Your task to perform on an android device: open app "Adobe Acrobat Reader: Edit PDF" Image 0: 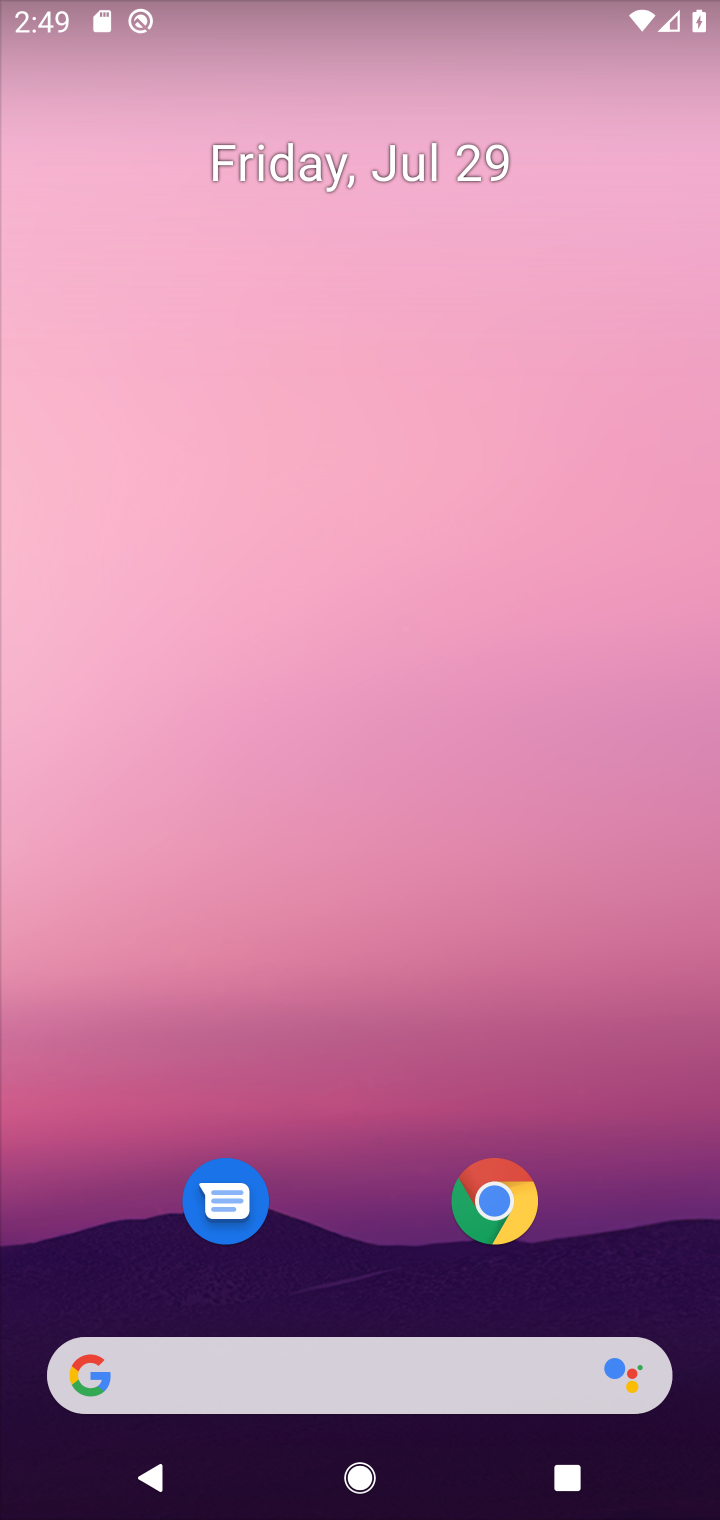
Step 0: click (656, 1018)
Your task to perform on an android device: open app "Adobe Acrobat Reader: Edit PDF" Image 1: 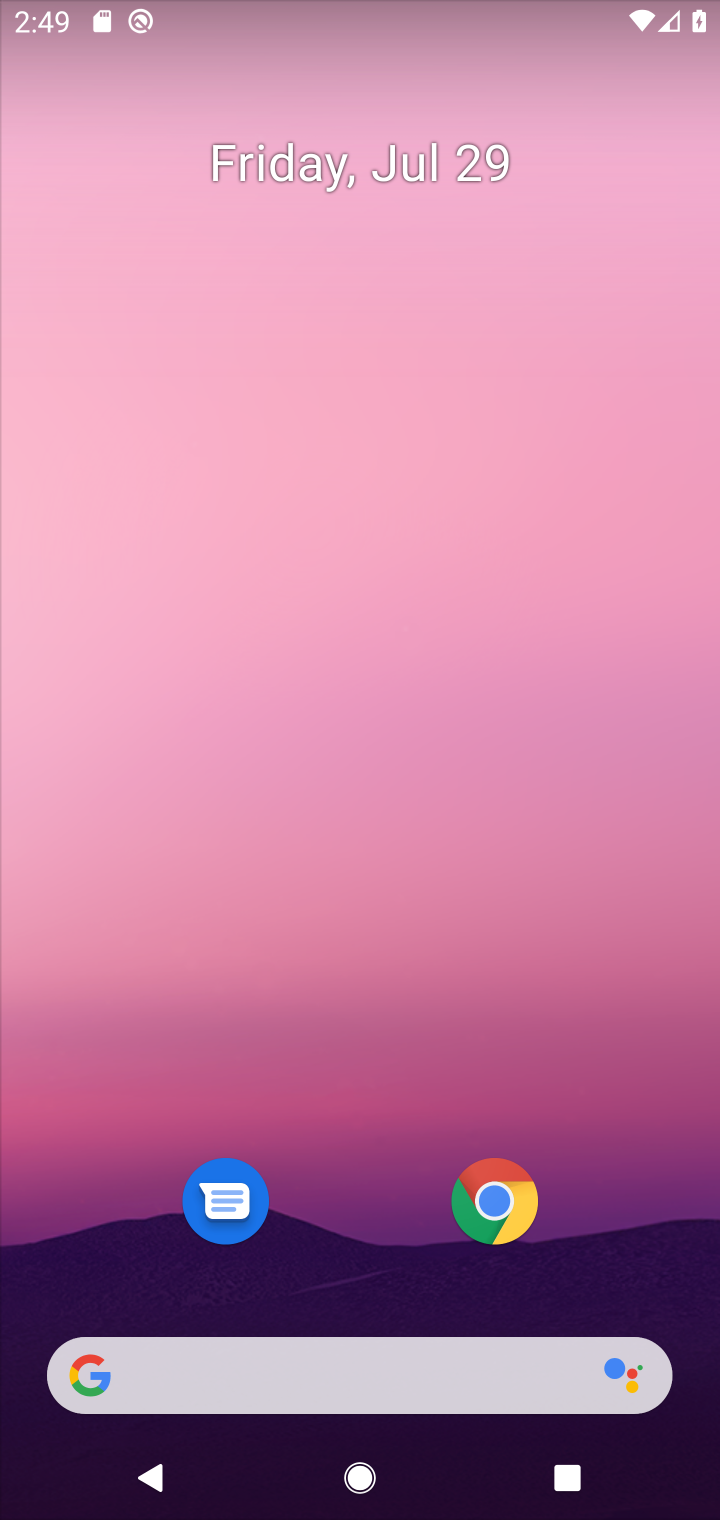
Step 1: drag from (656, 1018) to (580, 77)
Your task to perform on an android device: open app "Adobe Acrobat Reader: Edit PDF" Image 2: 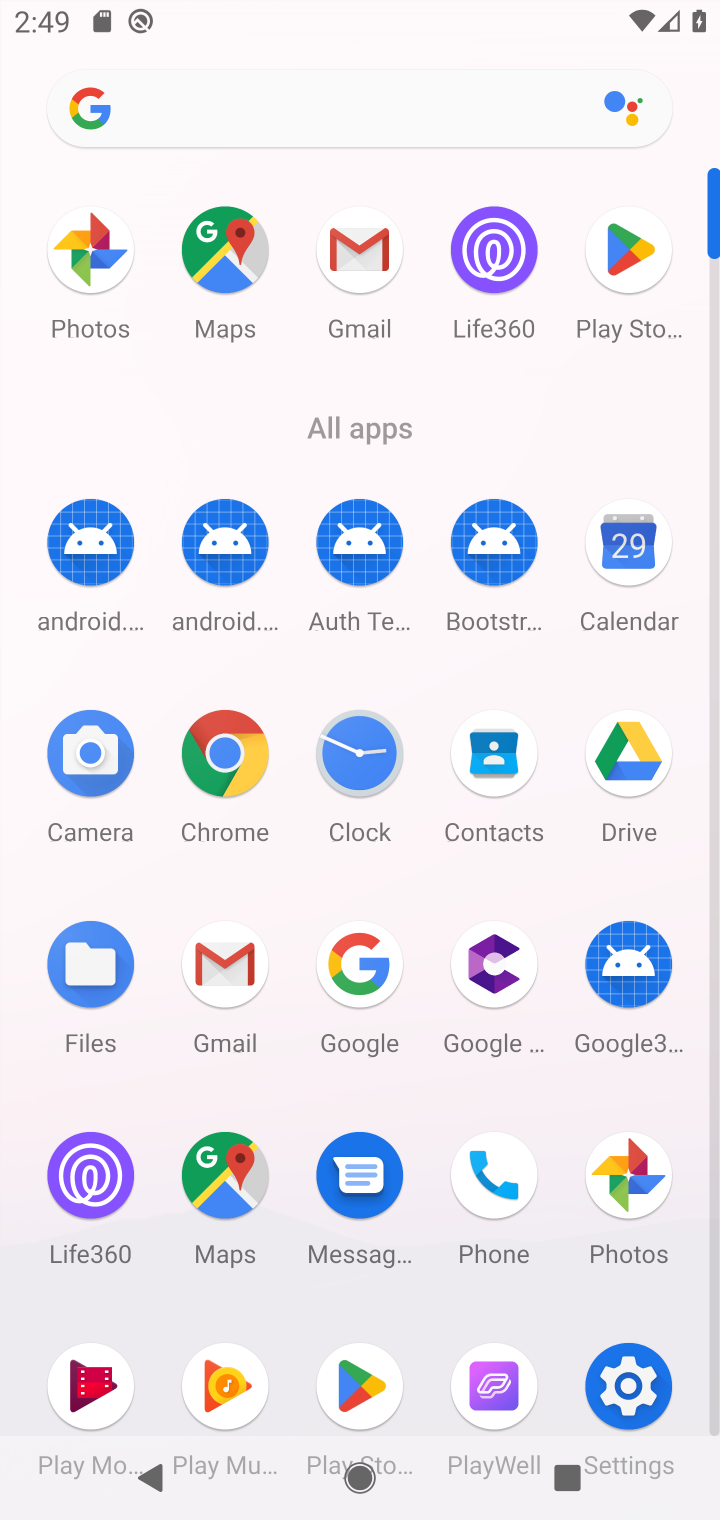
Step 2: click (616, 258)
Your task to perform on an android device: open app "Adobe Acrobat Reader: Edit PDF" Image 3: 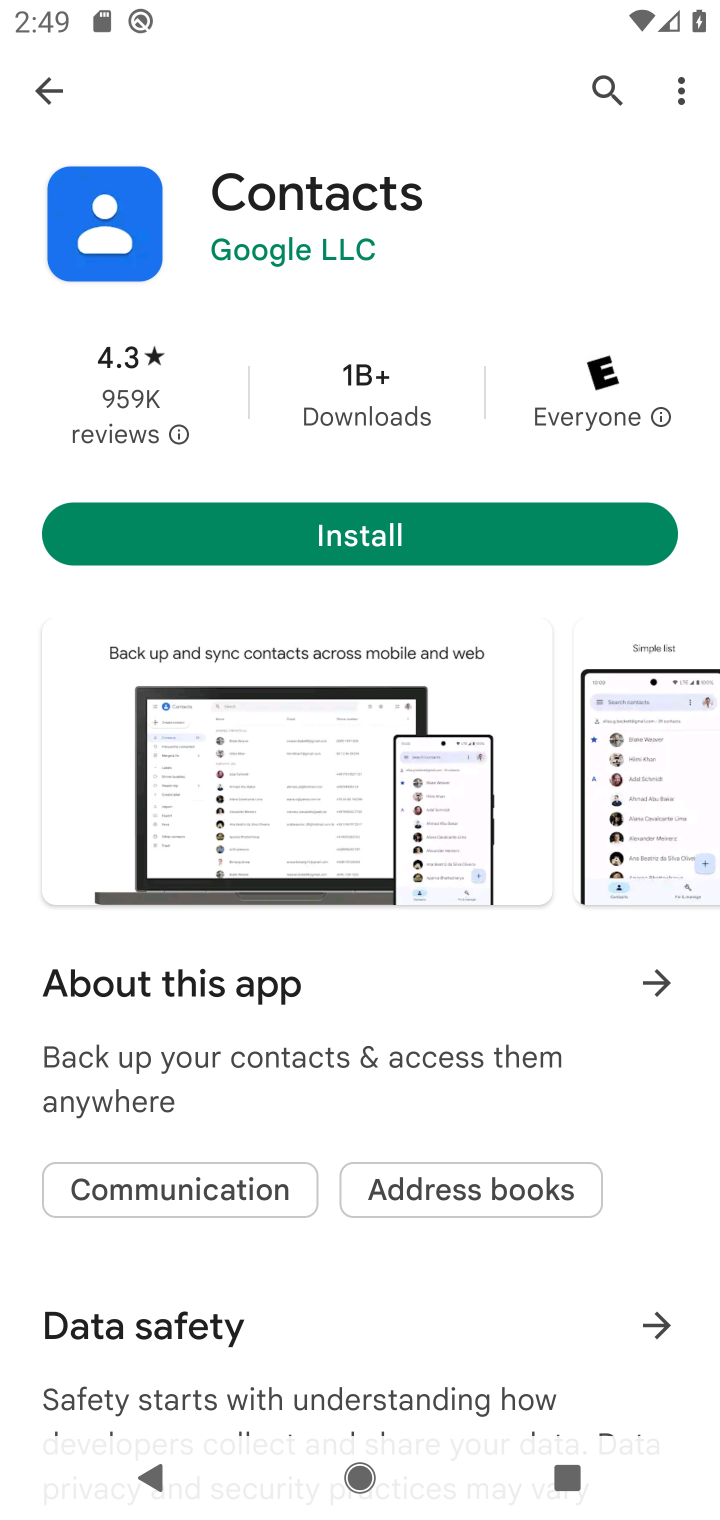
Step 3: click (595, 103)
Your task to perform on an android device: open app "Adobe Acrobat Reader: Edit PDF" Image 4: 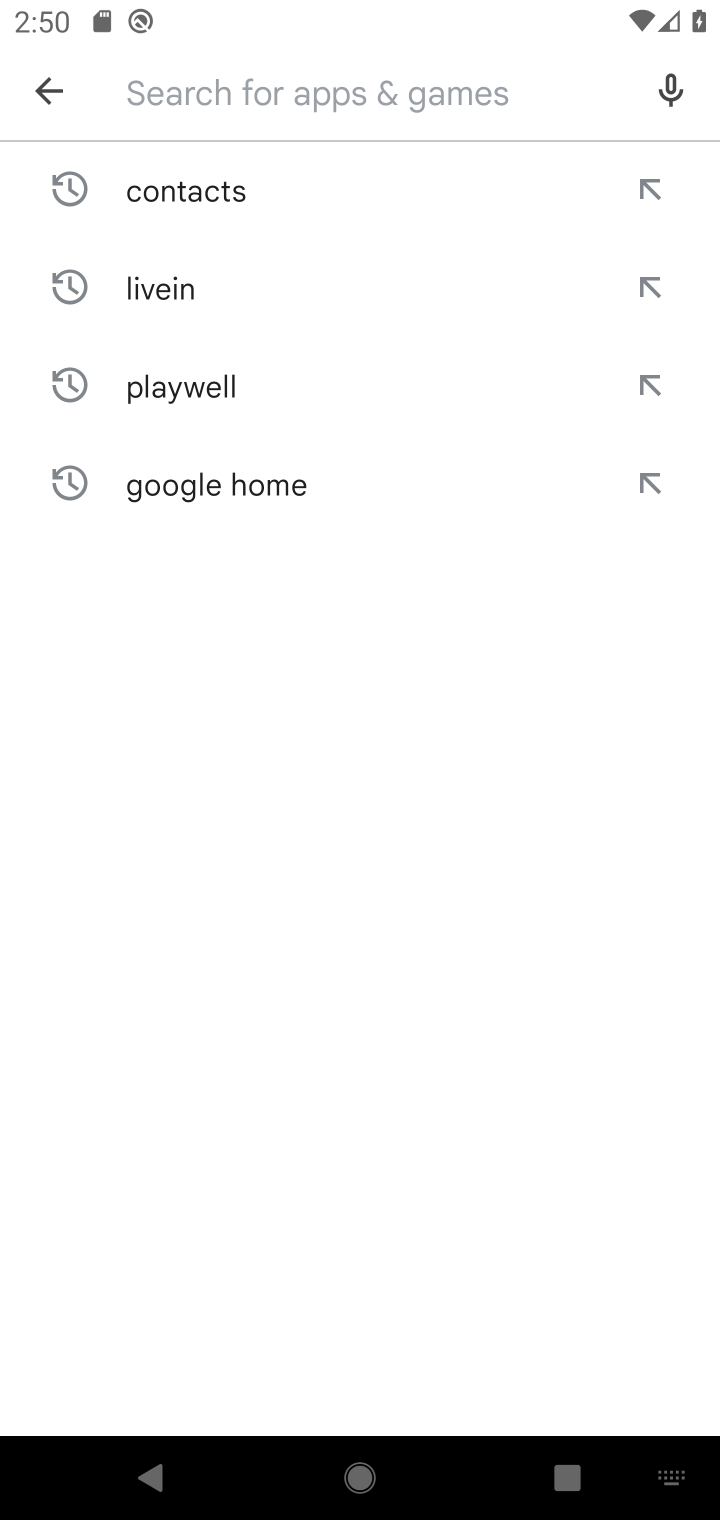
Step 4: type "Adobe Acrobat Reader: Edit PDF"
Your task to perform on an android device: open app "Adobe Acrobat Reader: Edit PDF" Image 5: 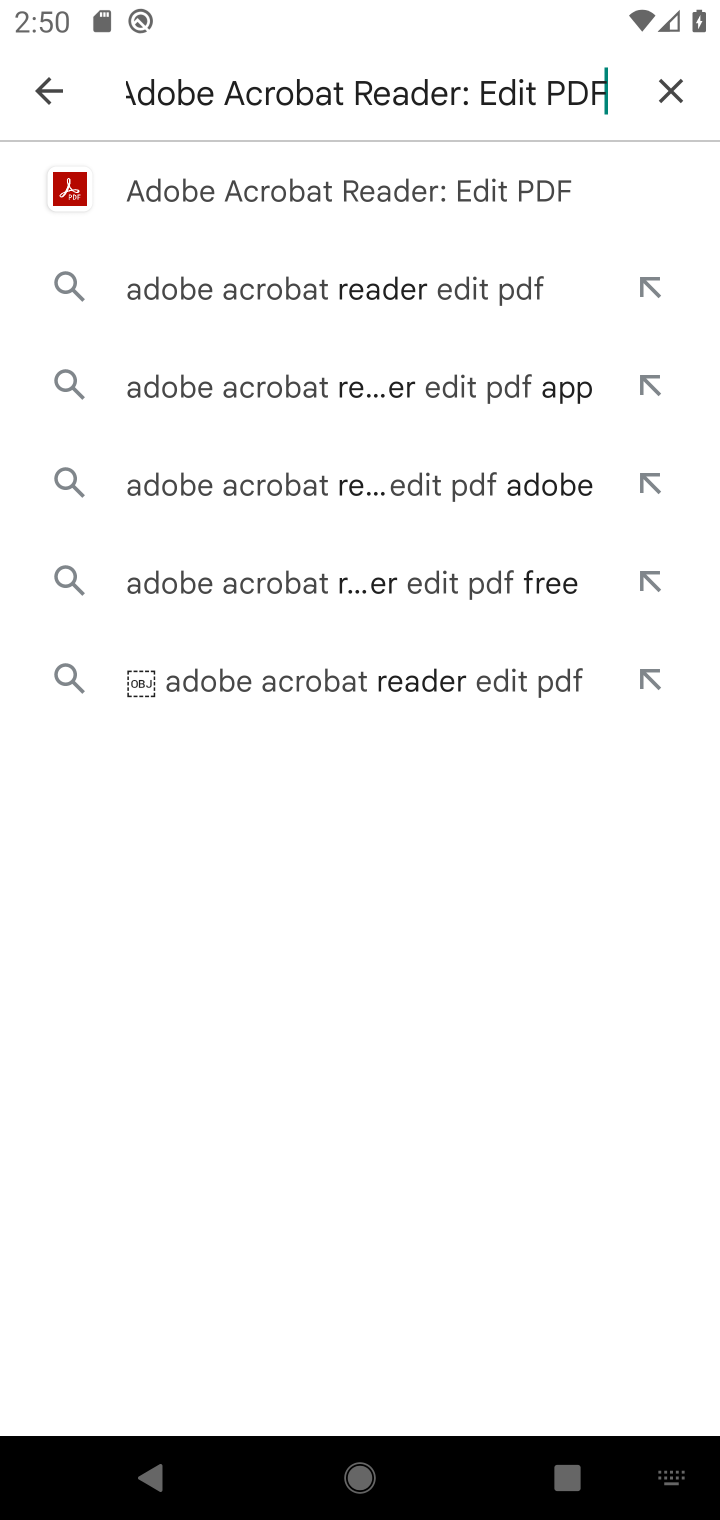
Step 5: click (167, 175)
Your task to perform on an android device: open app "Adobe Acrobat Reader: Edit PDF" Image 6: 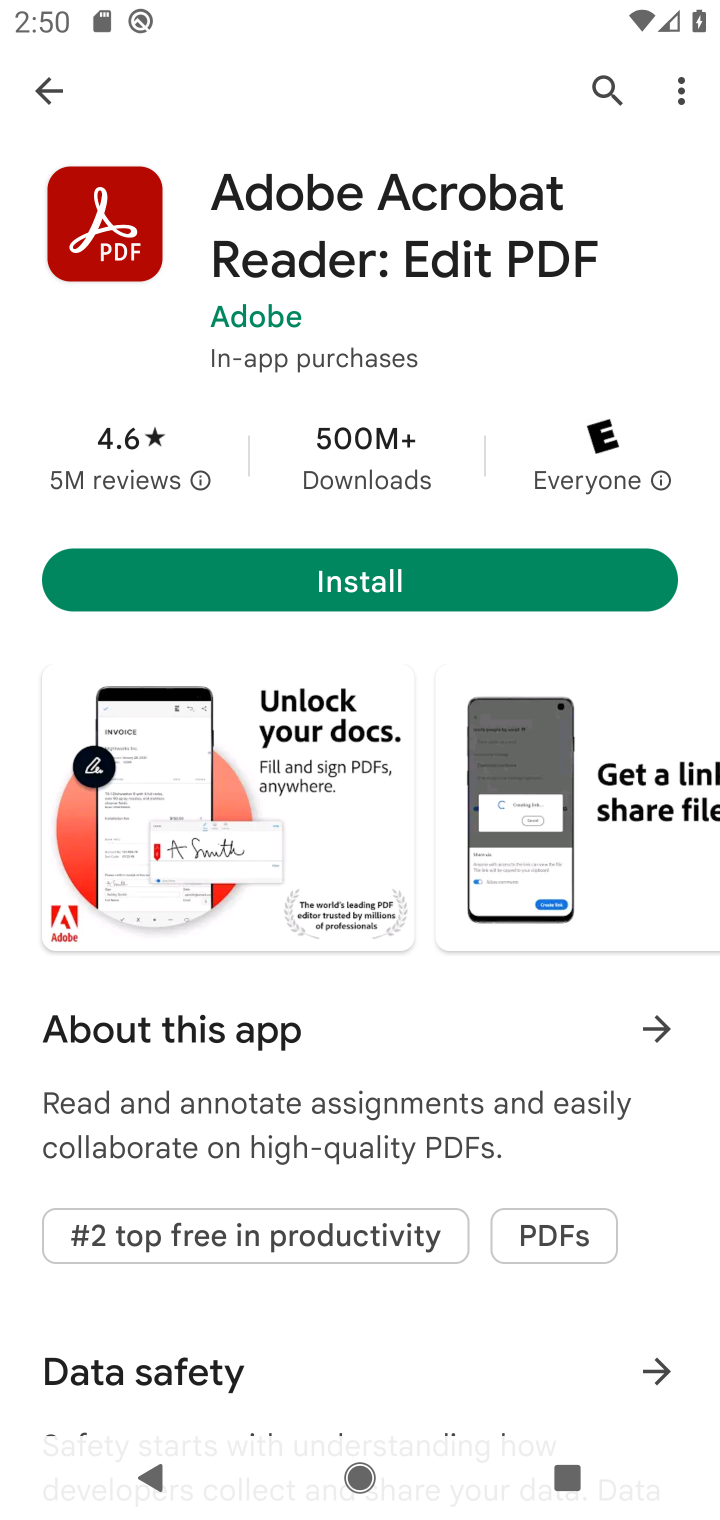
Step 6: task complete